Your task to perform on an android device: clear history in the chrome app Image 0: 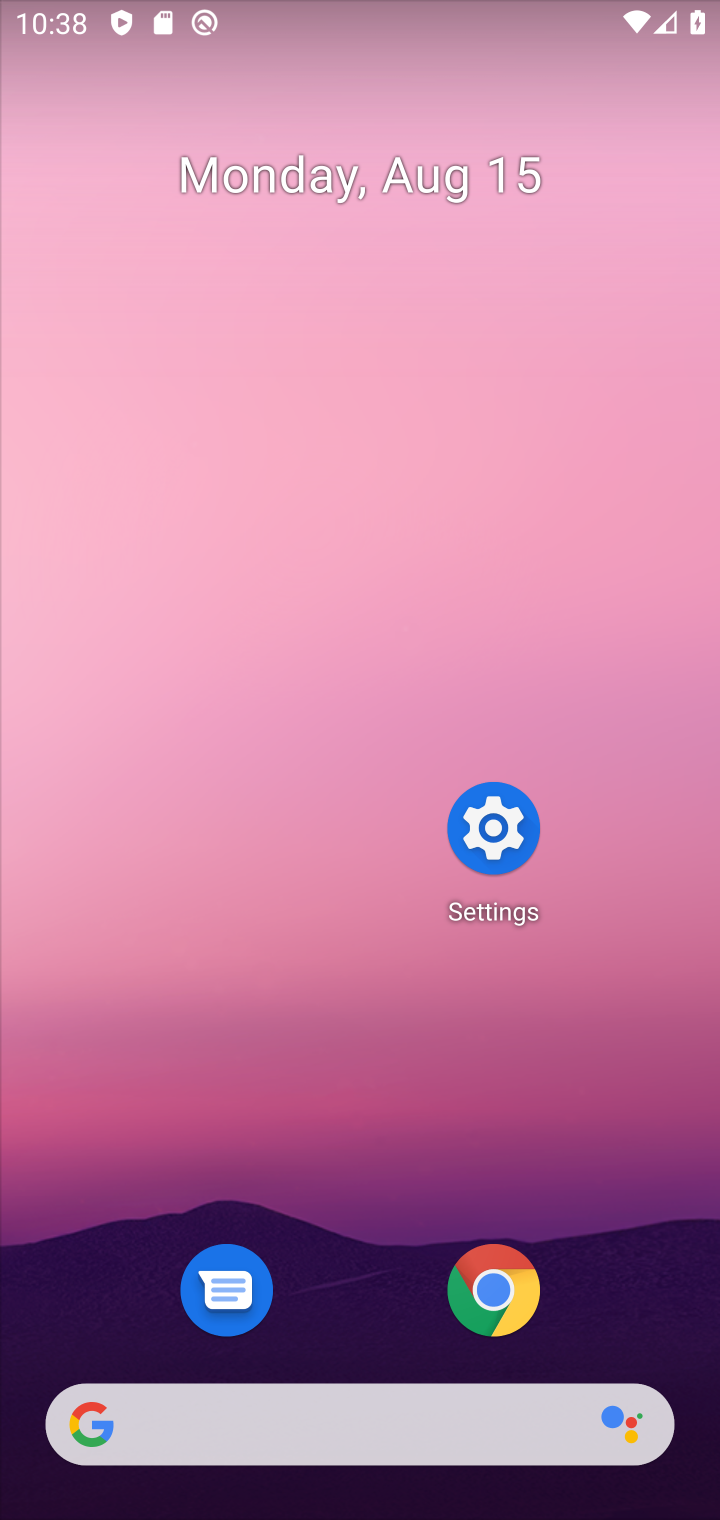
Step 0: press home button
Your task to perform on an android device: clear history in the chrome app Image 1: 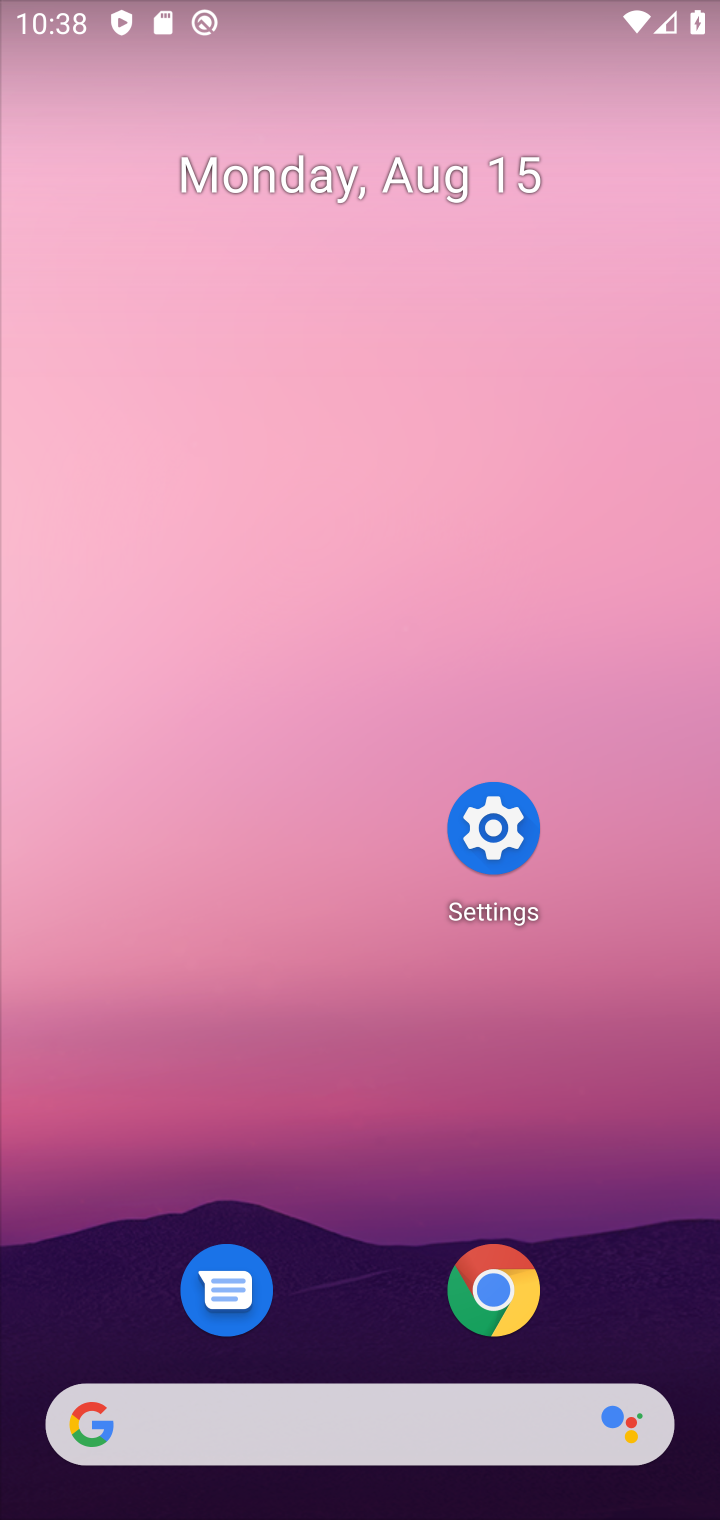
Step 1: click (498, 1286)
Your task to perform on an android device: clear history in the chrome app Image 2: 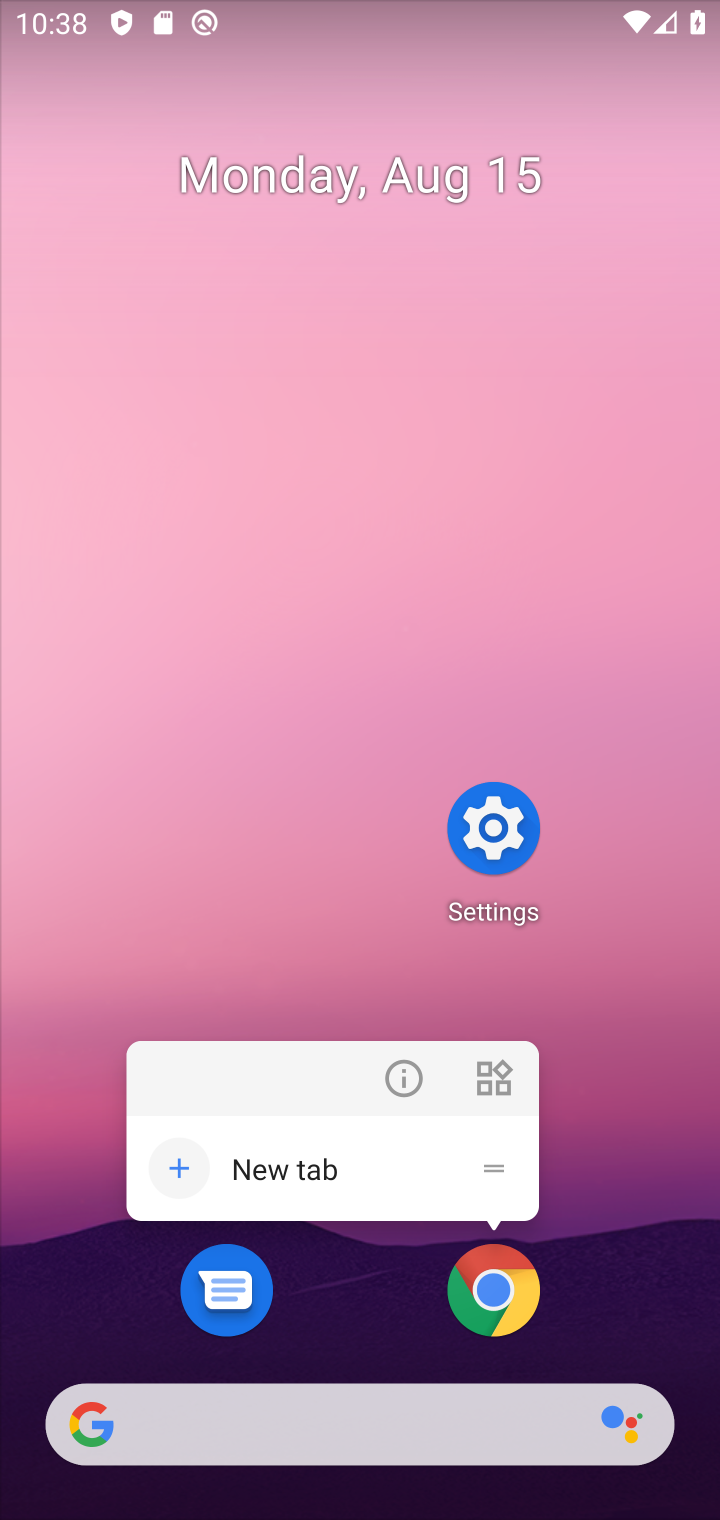
Step 2: click (495, 1290)
Your task to perform on an android device: clear history in the chrome app Image 3: 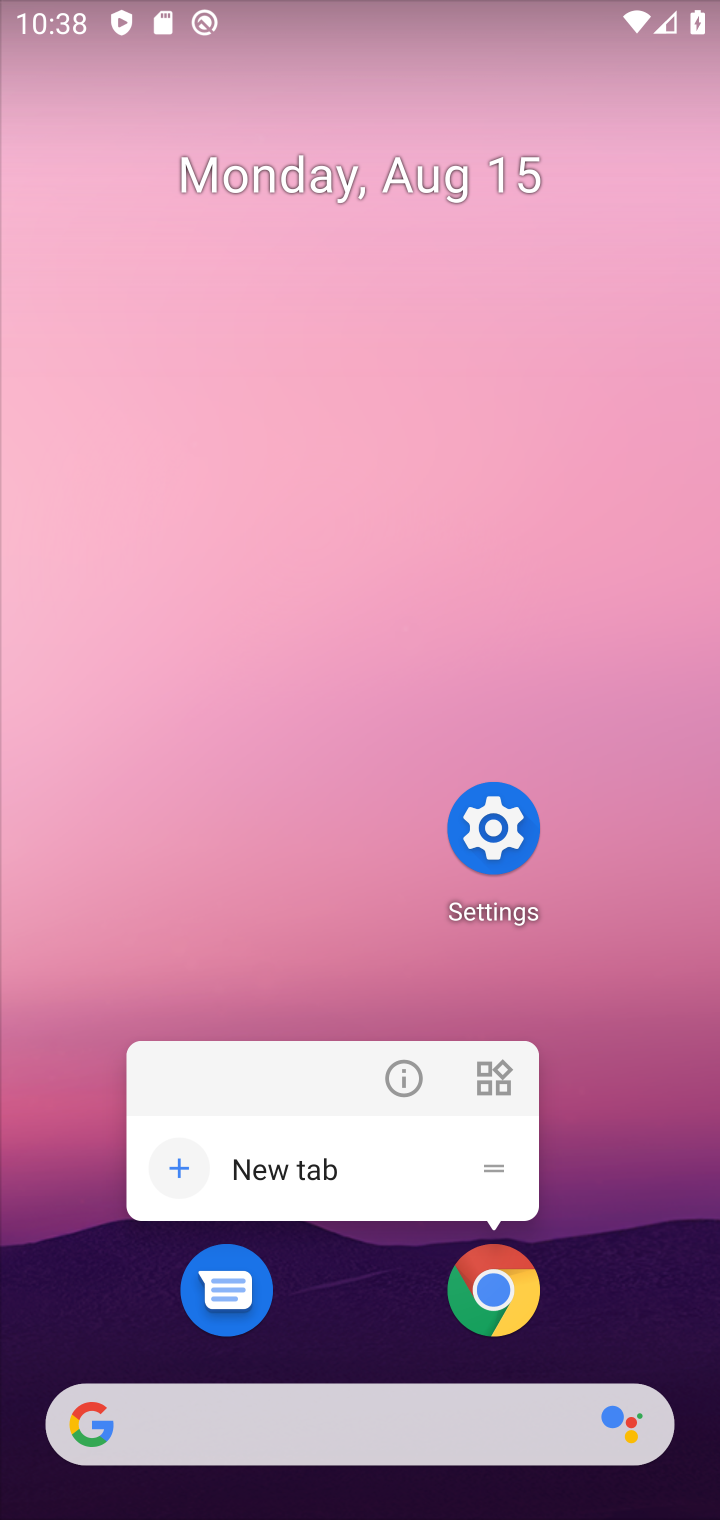
Step 3: click (495, 1290)
Your task to perform on an android device: clear history in the chrome app Image 4: 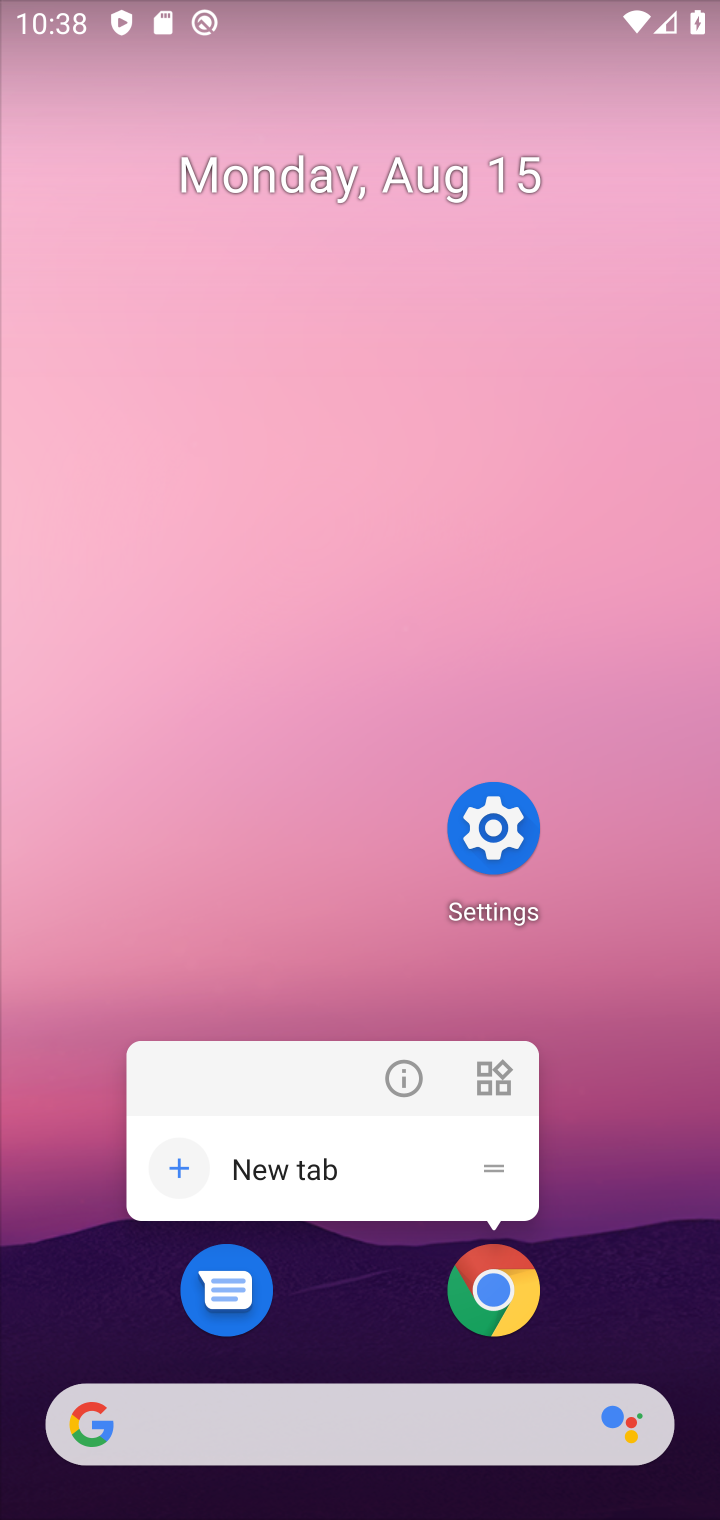
Step 4: click (495, 1290)
Your task to perform on an android device: clear history in the chrome app Image 5: 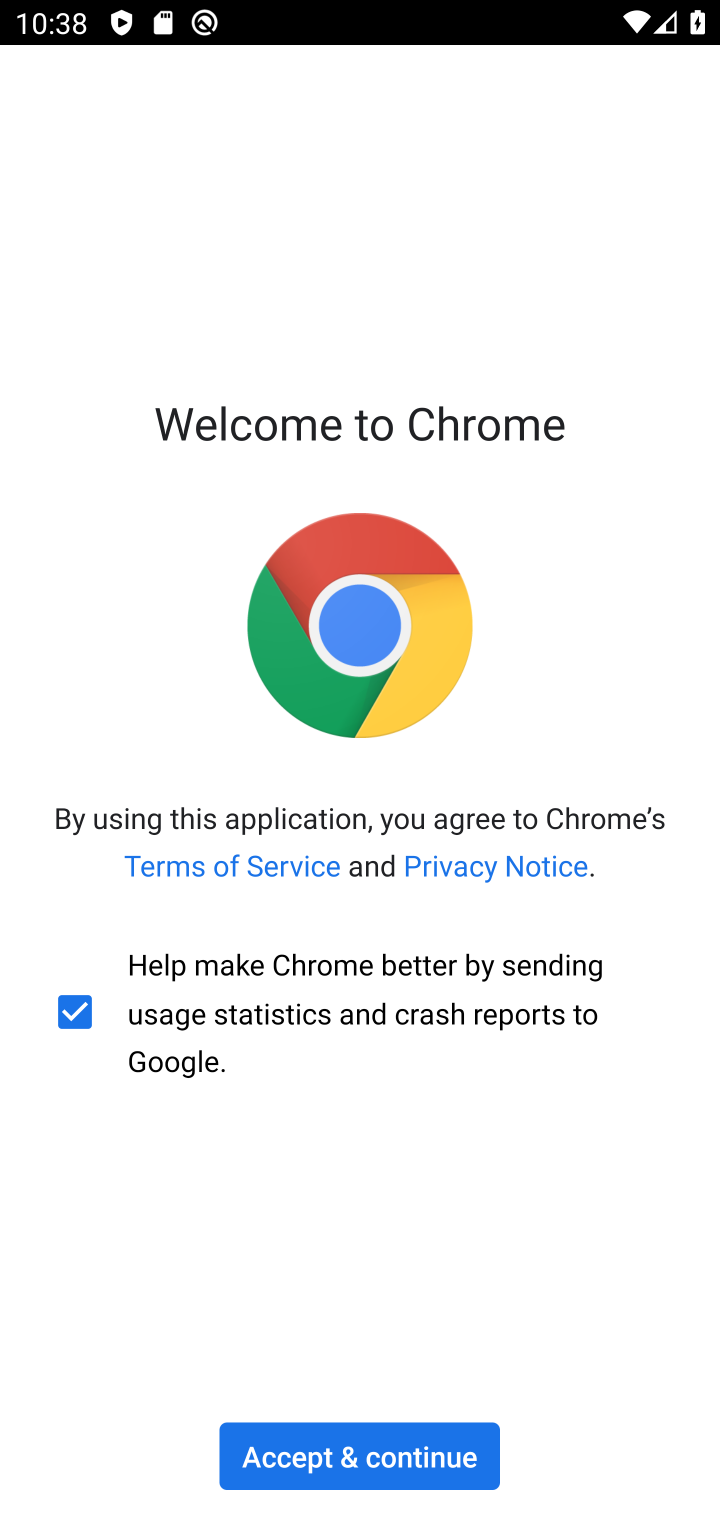
Step 5: click (390, 1435)
Your task to perform on an android device: clear history in the chrome app Image 6: 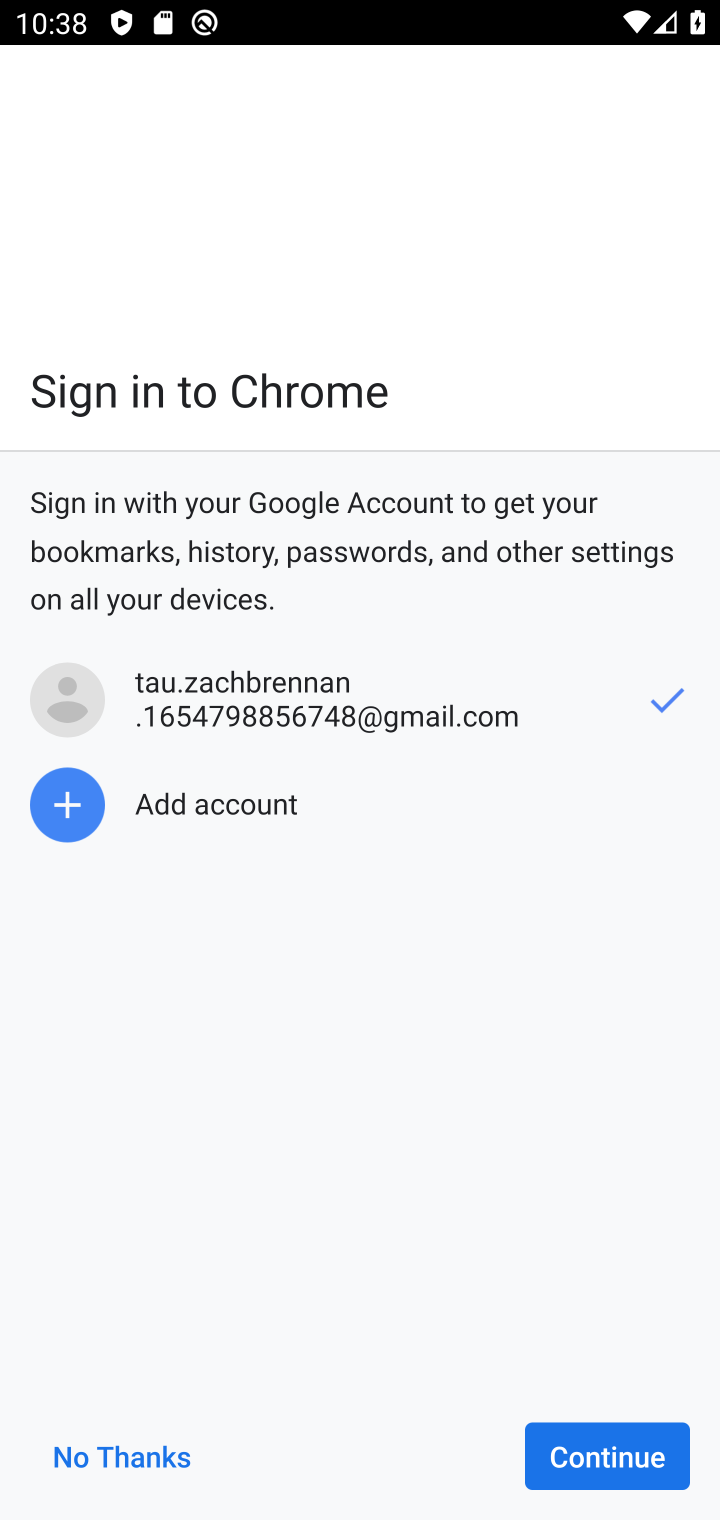
Step 6: click (631, 1469)
Your task to perform on an android device: clear history in the chrome app Image 7: 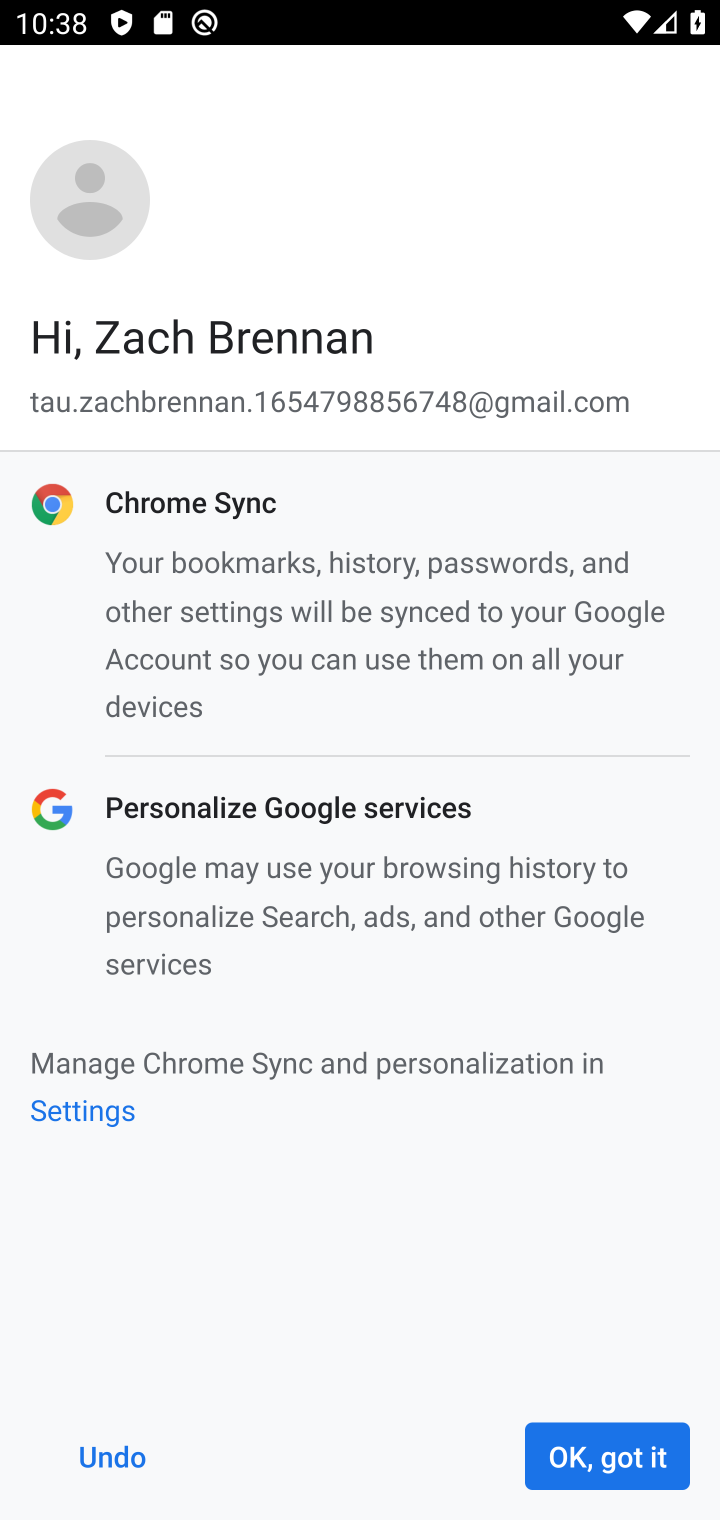
Step 7: click (609, 1469)
Your task to perform on an android device: clear history in the chrome app Image 8: 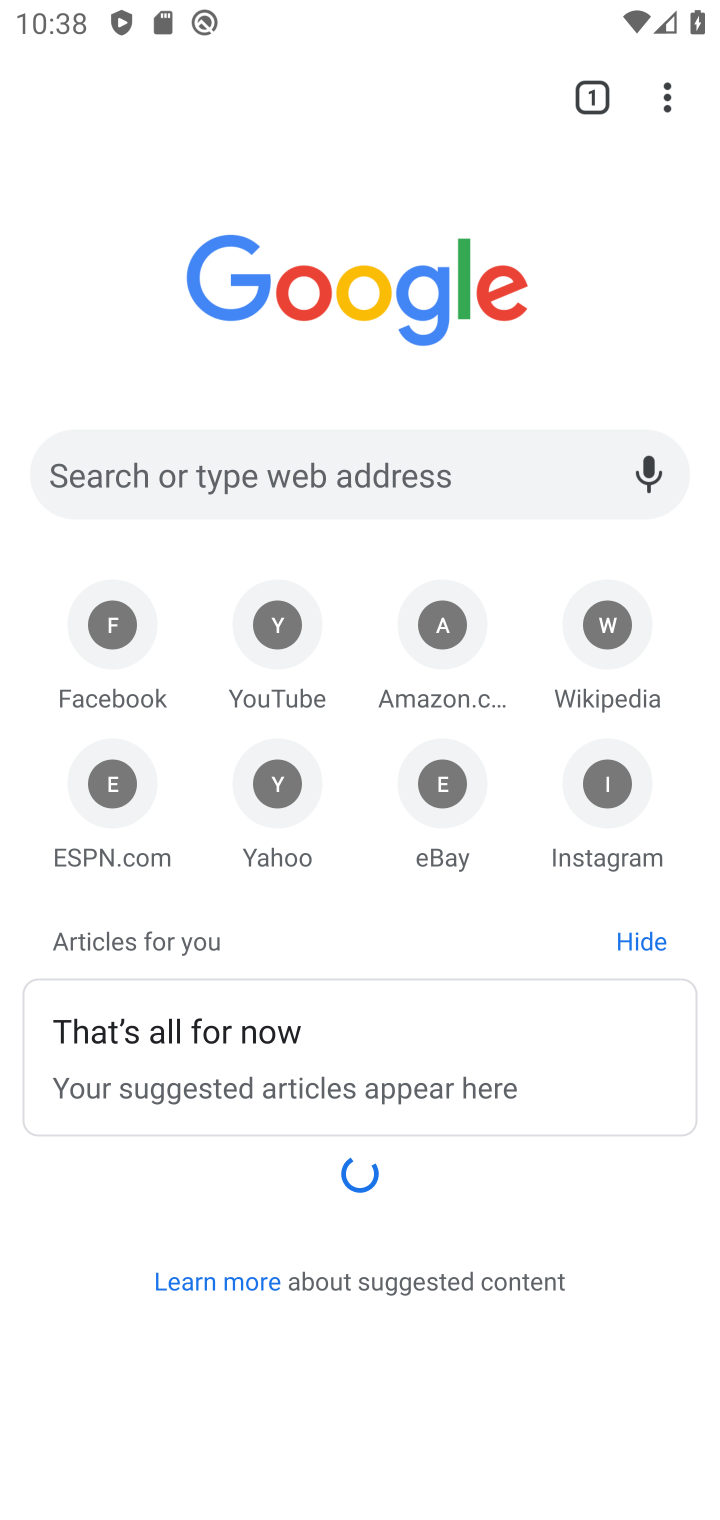
Step 8: drag from (681, 87) to (349, 557)
Your task to perform on an android device: clear history in the chrome app Image 9: 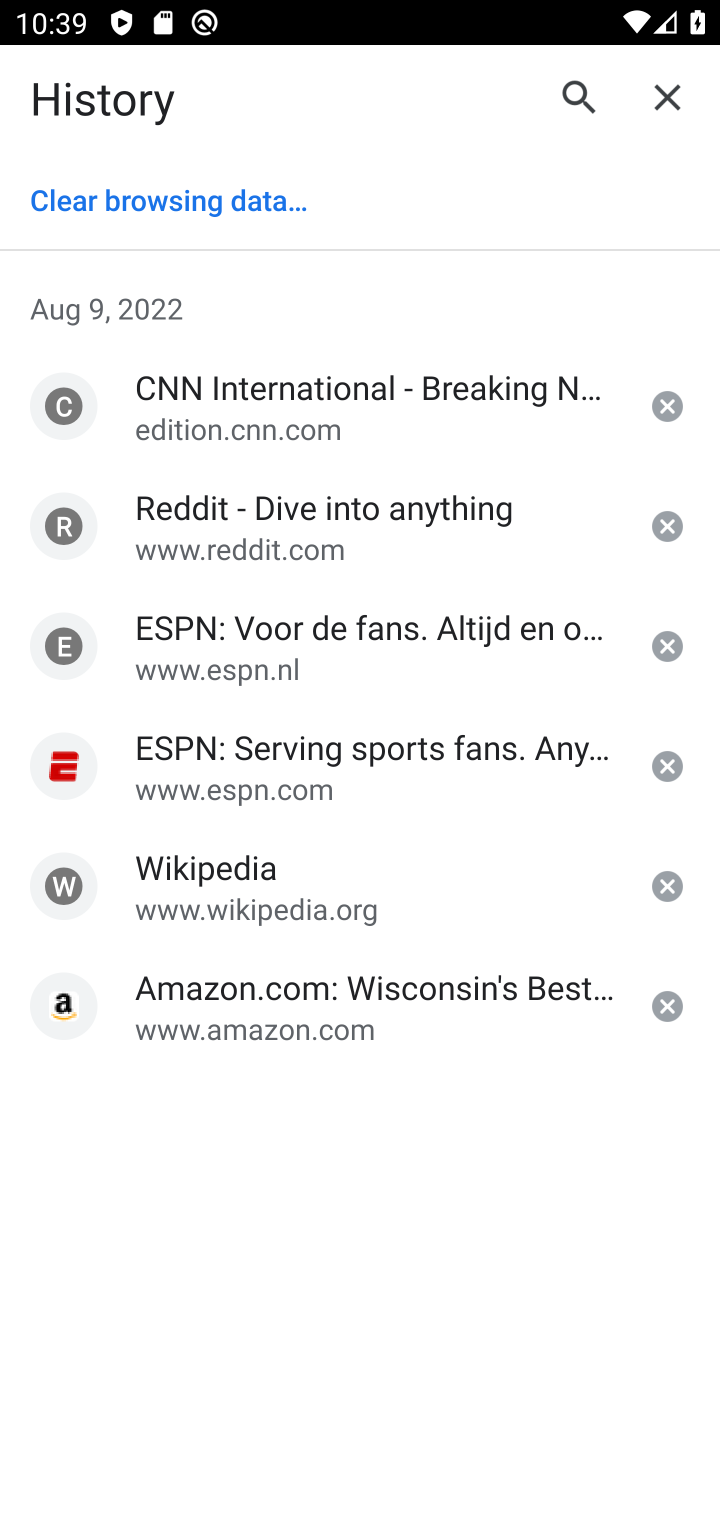
Step 9: click (152, 206)
Your task to perform on an android device: clear history in the chrome app Image 10: 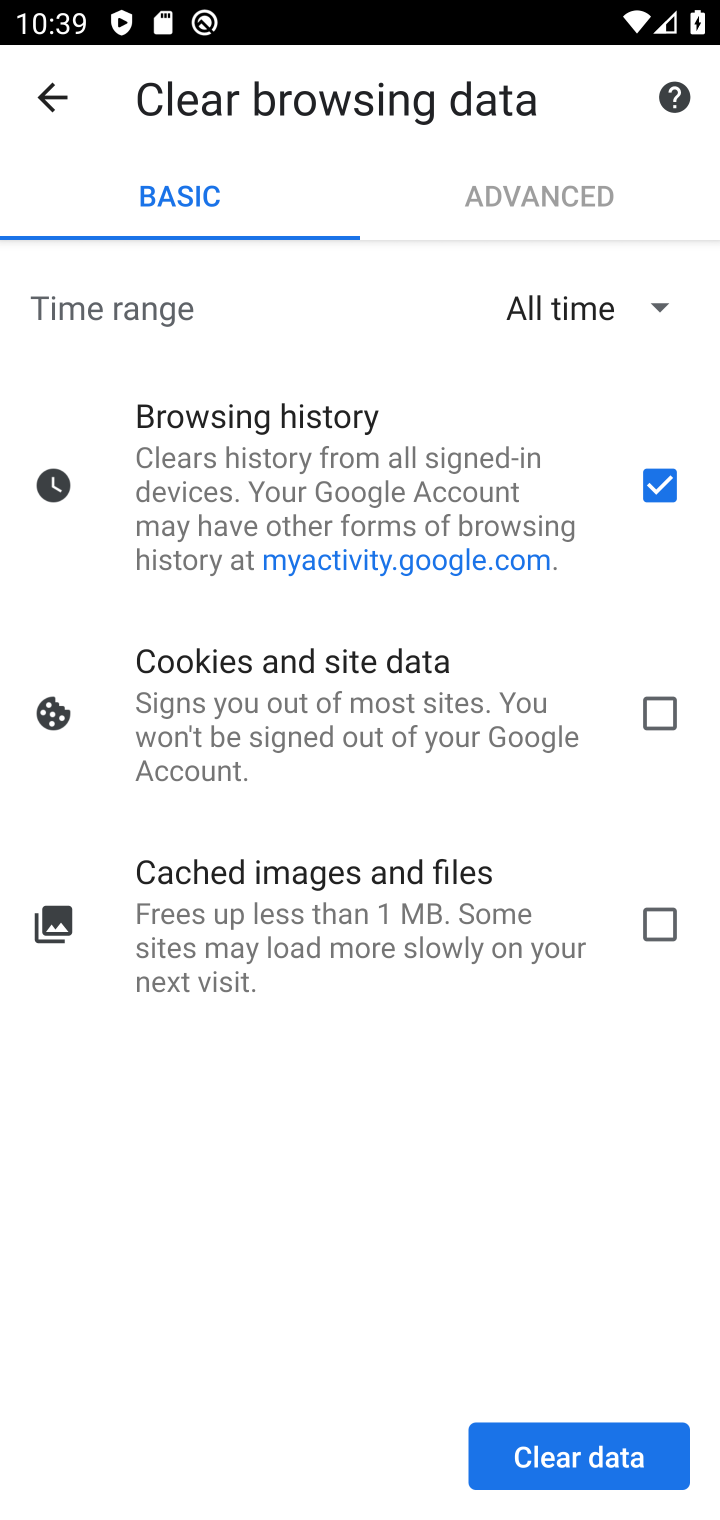
Step 10: click (654, 705)
Your task to perform on an android device: clear history in the chrome app Image 11: 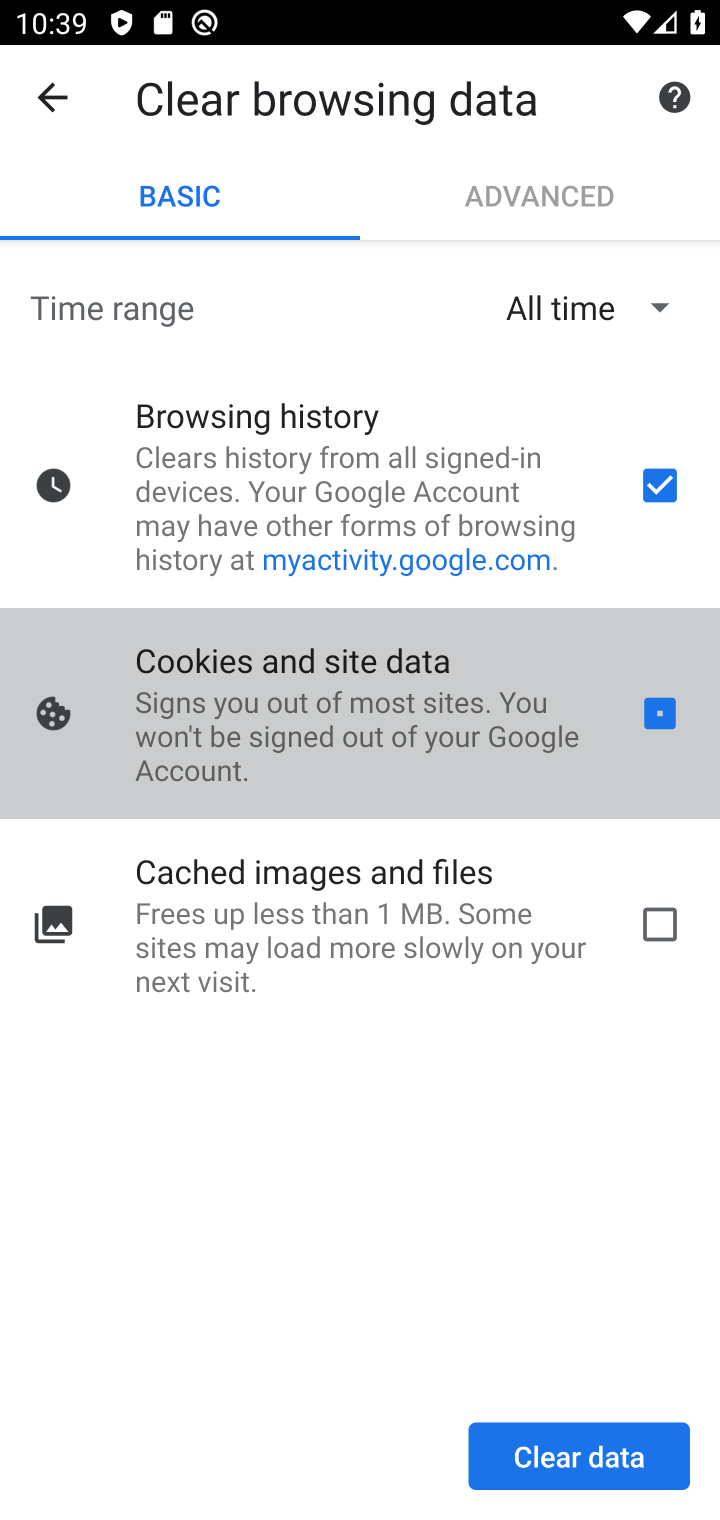
Step 11: click (666, 919)
Your task to perform on an android device: clear history in the chrome app Image 12: 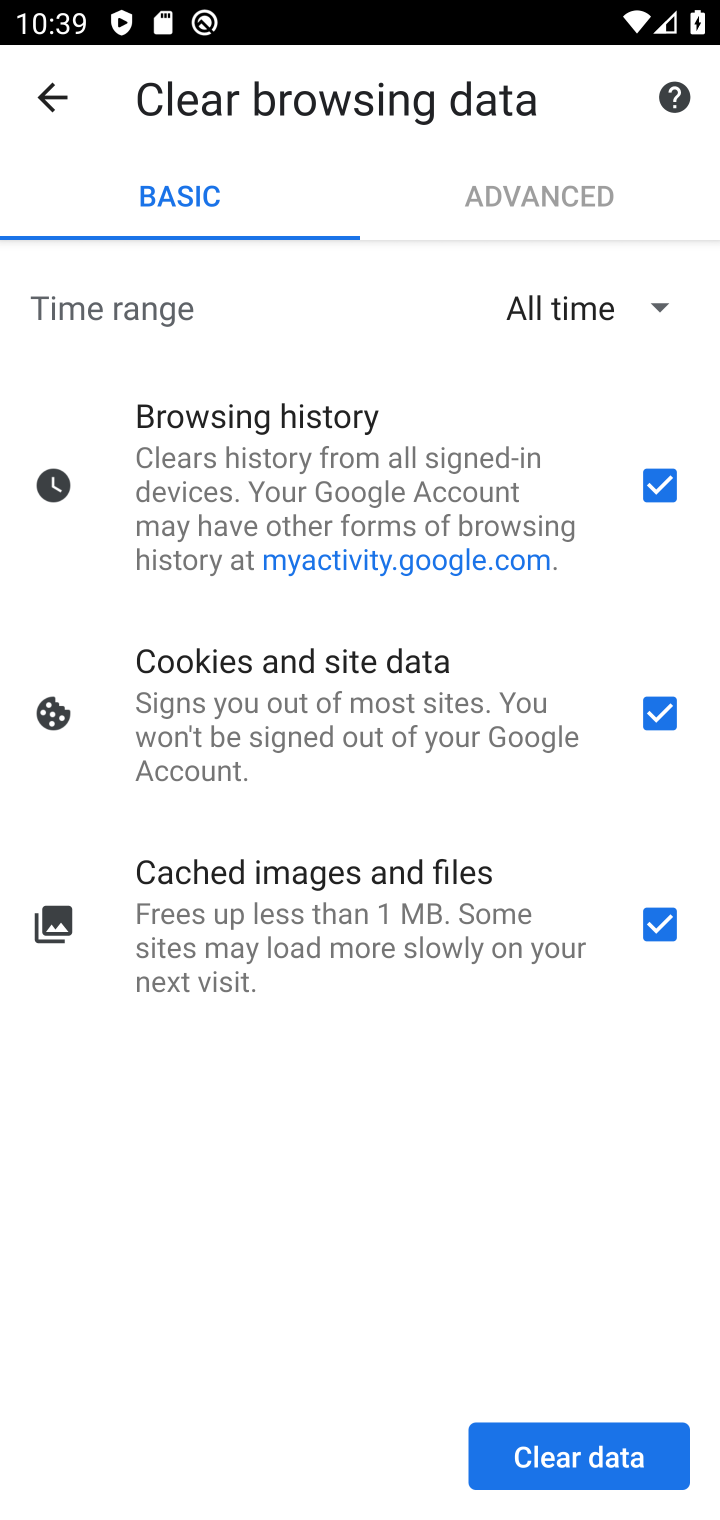
Step 12: click (576, 1458)
Your task to perform on an android device: clear history in the chrome app Image 13: 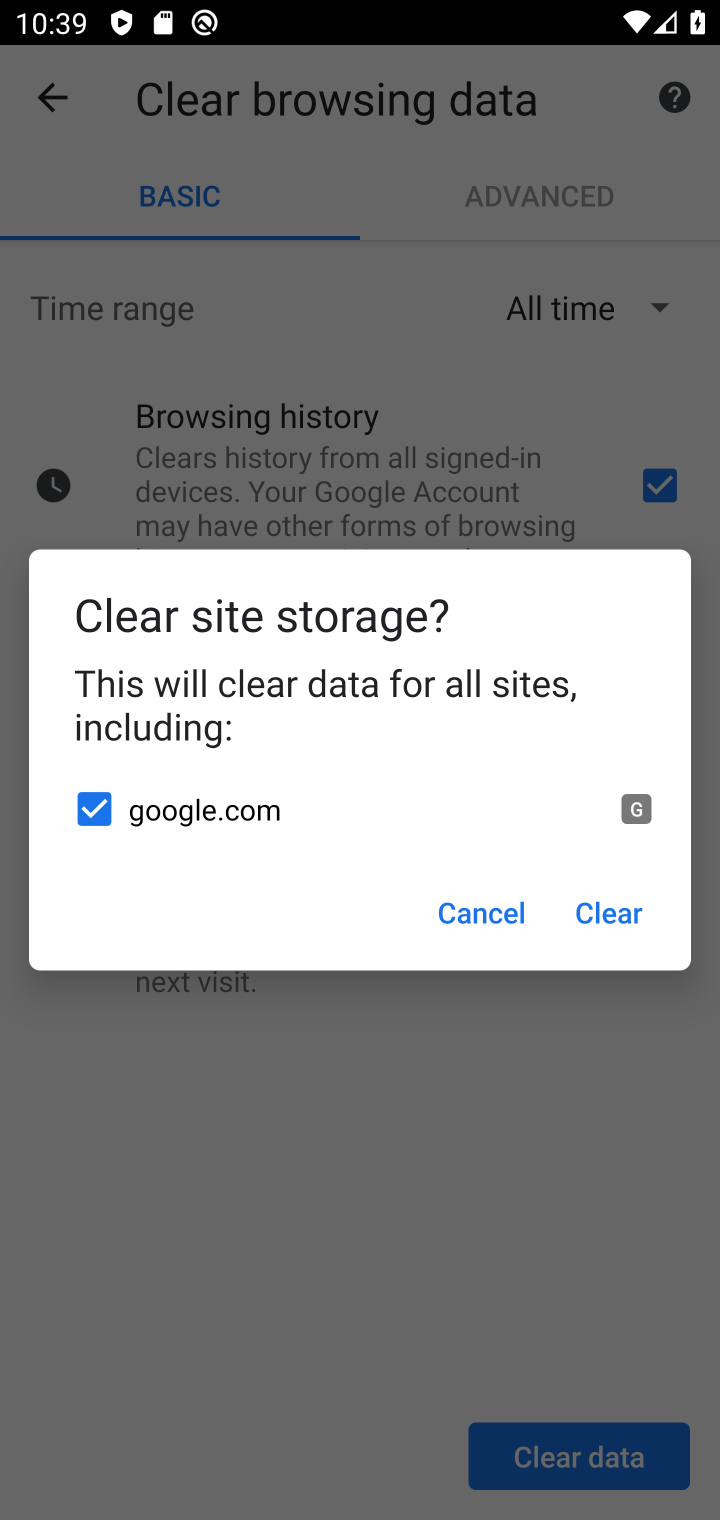
Step 13: click (635, 899)
Your task to perform on an android device: clear history in the chrome app Image 14: 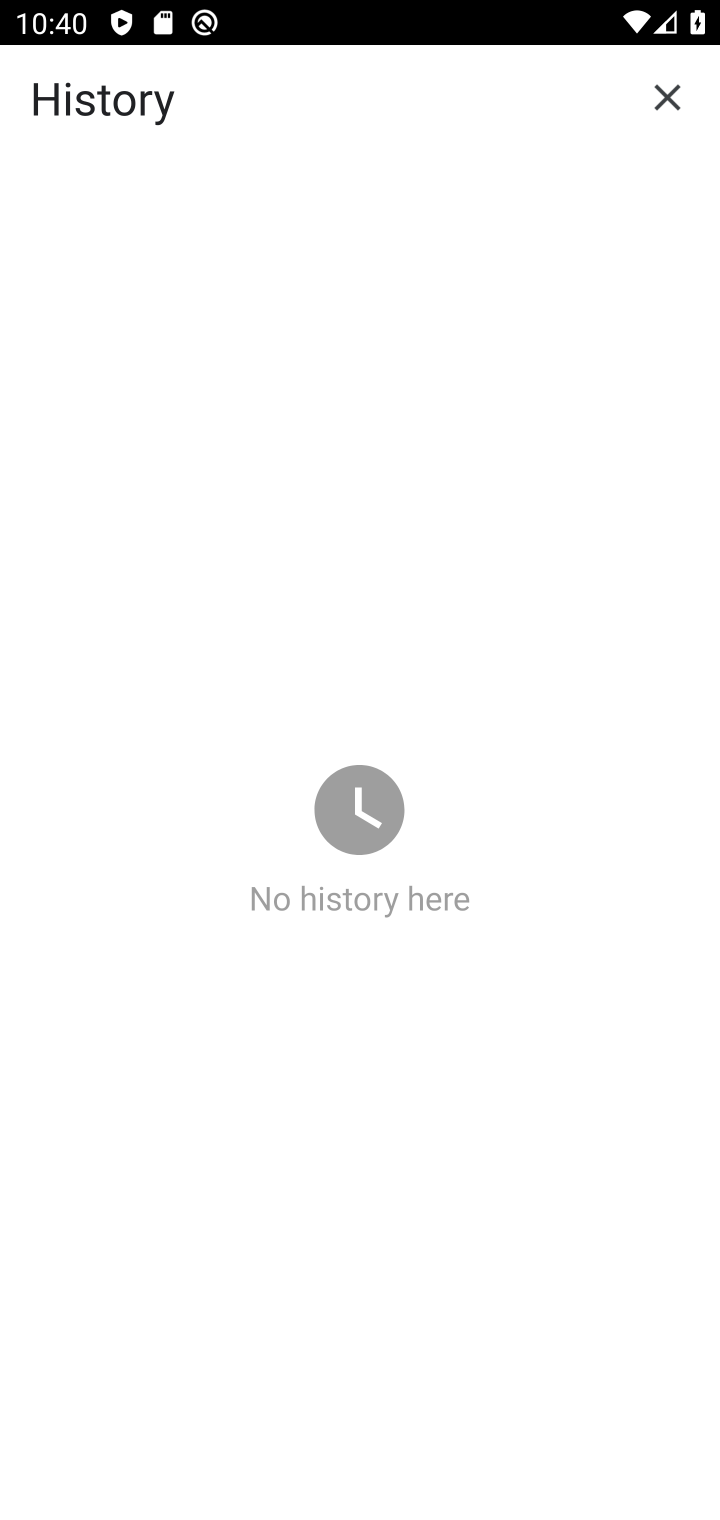
Step 14: task complete